Your task to perform on an android device: See recent photos Image 0: 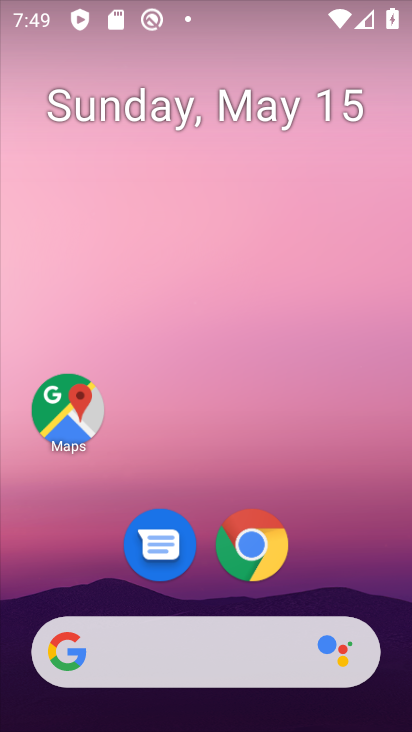
Step 0: drag from (347, 567) to (366, 109)
Your task to perform on an android device: See recent photos Image 1: 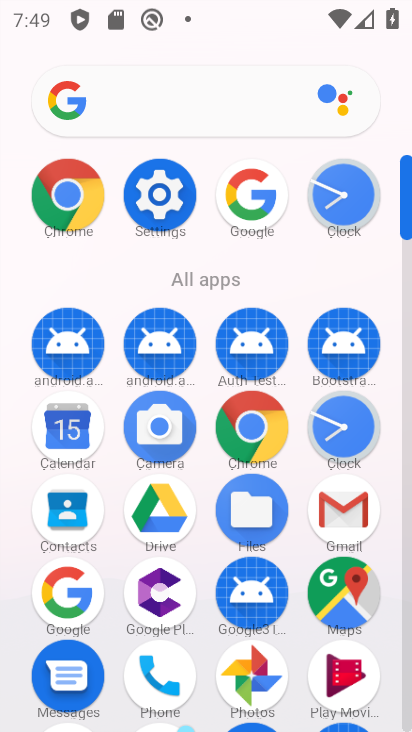
Step 1: click (256, 678)
Your task to perform on an android device: See recent photos Image 2: 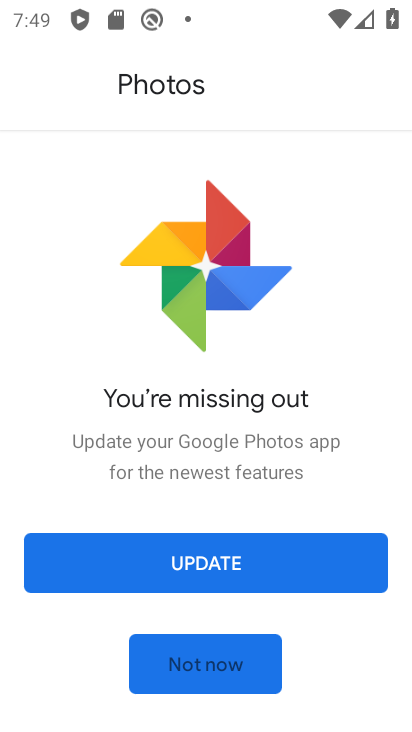
Step 2: click (227, 551)
Your task to perform on an android device: See recent photos Image 3: 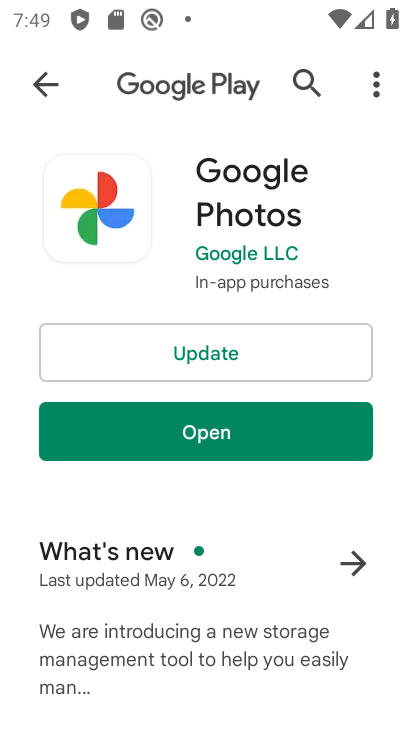
Step 3: click (250, 348)
Your task to perform on an android device: See recent photos Image 4: 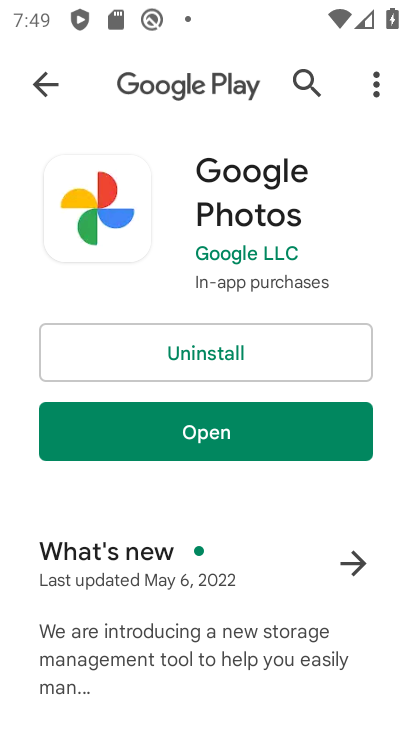
Step 4: click (223, 427)
Your task to perform on an android device: See recent photos Image 5: 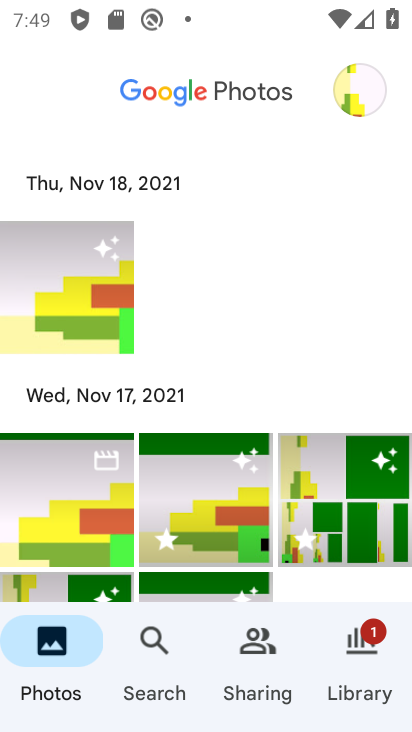
Step 5: click (35, 309)
Your task to perform on an android device: See recent photos Image 6: 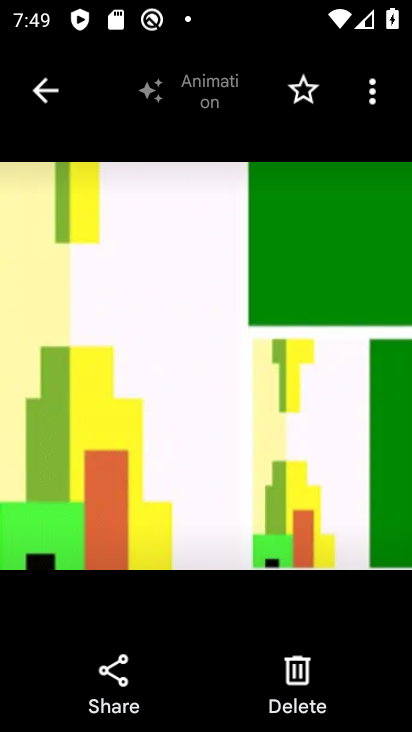
Step 6: task complete